Your task to perform on an android device: Go to Yahoo.com Image 0: 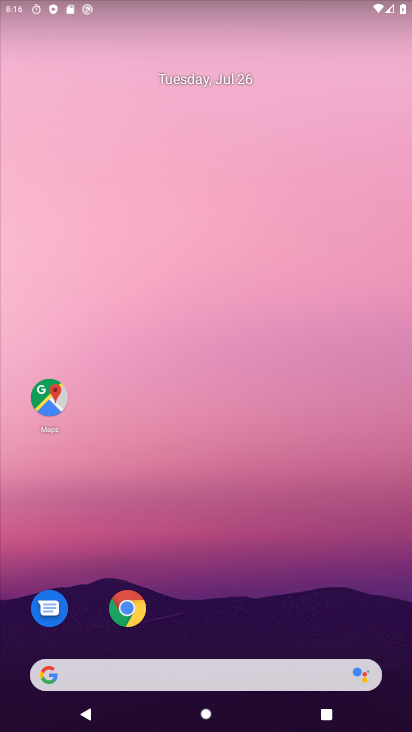
Step 0: drag from (297, 572) to (329, 143)
Your task to perform on an android device: Go to Yahoo.com Image 1: 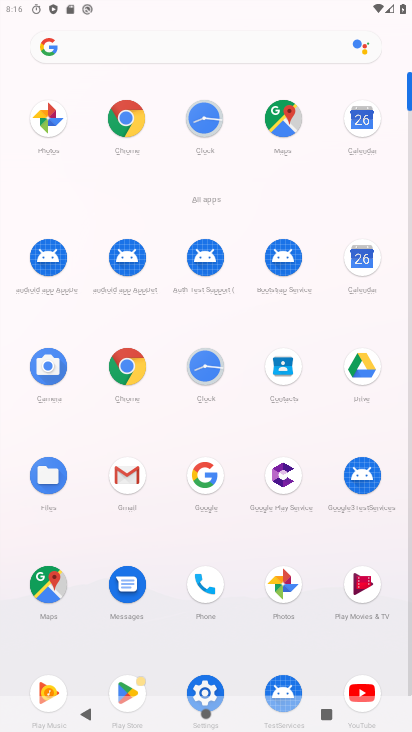
Step 1: click (121, 358)
Your task to perform on an android device: Go to Yahoo.com Image 2: 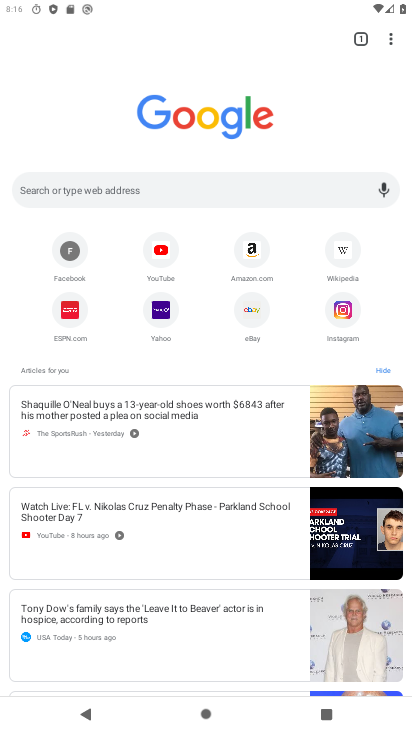
Step 2: click (159, 301)
Your task to perform on an android device: Go to Yahoo.com Image 3: 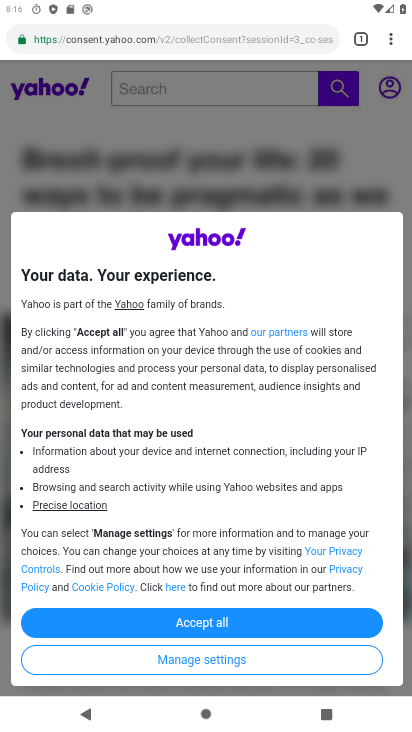
Step 3: task complete